Your task to perform on an android device: Go to location settings Image 0: 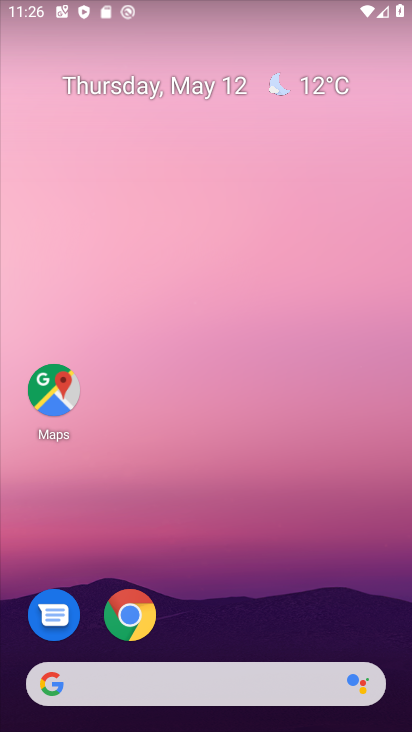
Step 0: drag from (220, 626) to (224, 157)
Your task to perform on an android device: Go to location settings Image 1: 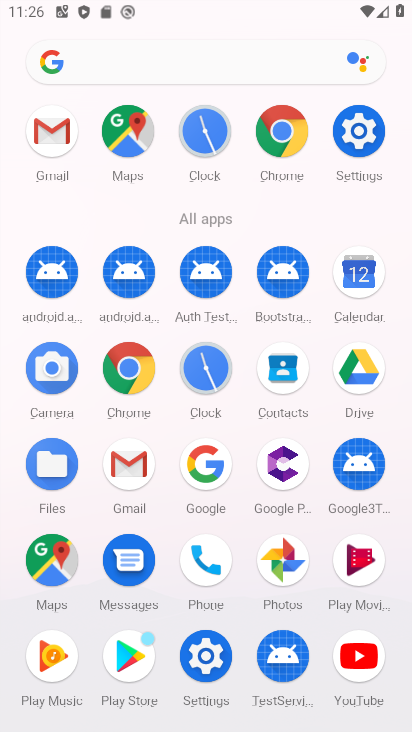
Step 1: click (355, 127)
Your task to perform on an android device: Go to location settings Image 2: 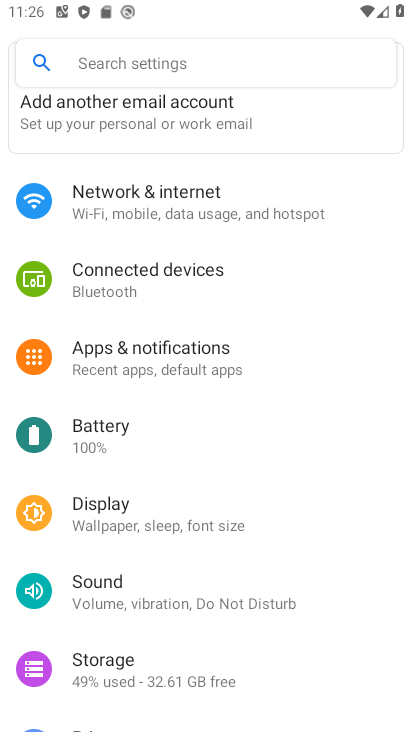
Step 2: drag from (205, 522) to (228, 297)
Your task to perform on an android device: Go to location settings Image 3: 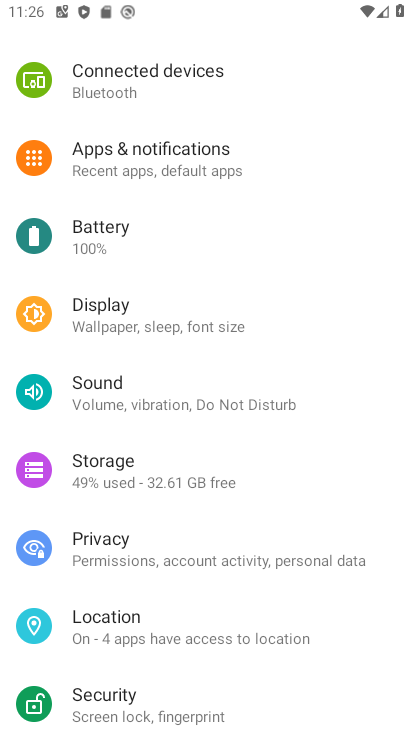
Step 3: click (177, 617)
Your task to perform on an android device: Go to location settings Image 4: 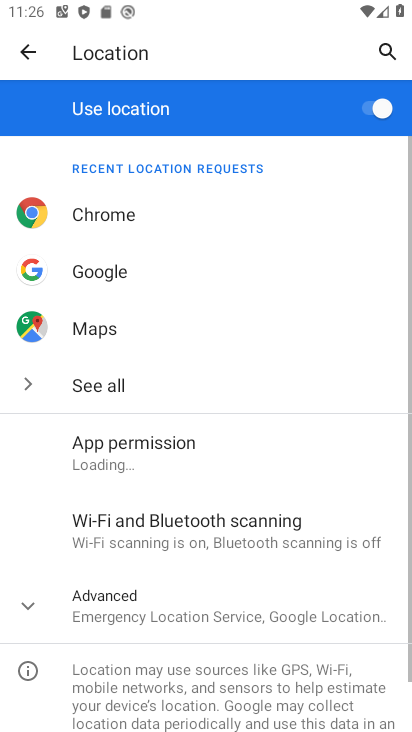
Step 4: task complete